Your task to perform on an android device: see sites visited before in the chrome app Image 0: 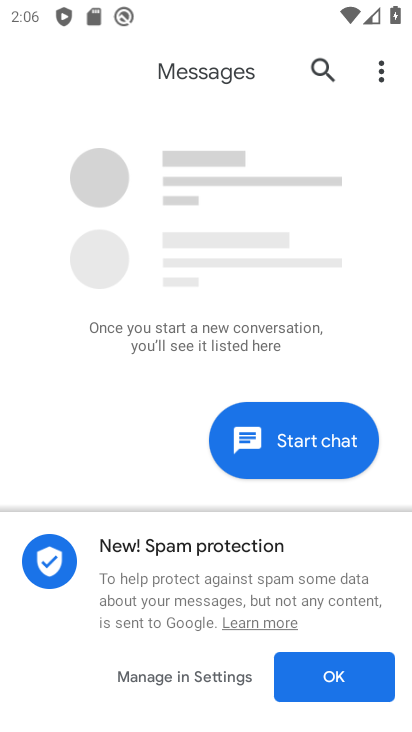
Step 0: press home button
Your task to perform on an android device: see sites visited before in the chrome app Image 1: 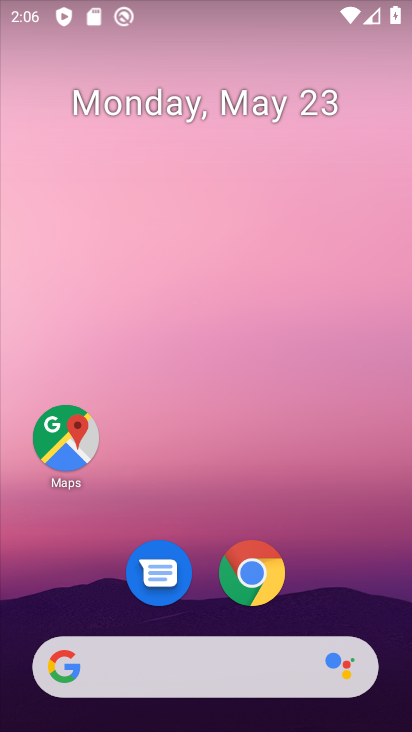
Step 1: click (254, 570)
Your task to perform on an android device: see sites visited before in the chrome app Image 2: 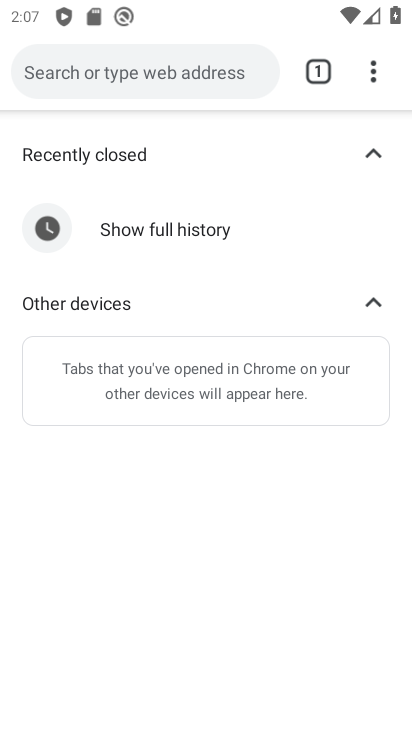
Step 2: task complete